Your task to perform on an android device: turn pop-ups off in chrome Image 0: 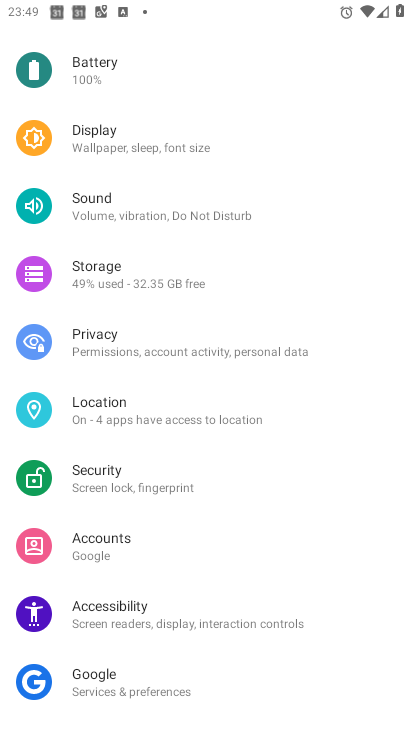
Step 0: press home button
Your task to perform on an android device: turn pop-ups off in chrome Image 1: 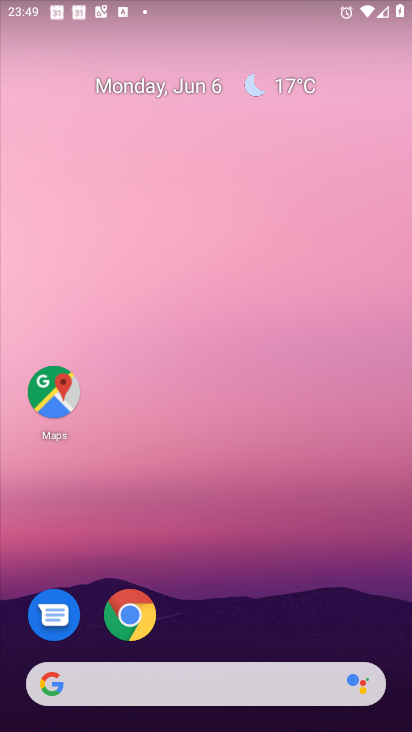
Step 1: click (136, 617)
Your task to perform on an android device: turn pop-ups off in chrome Image 2: 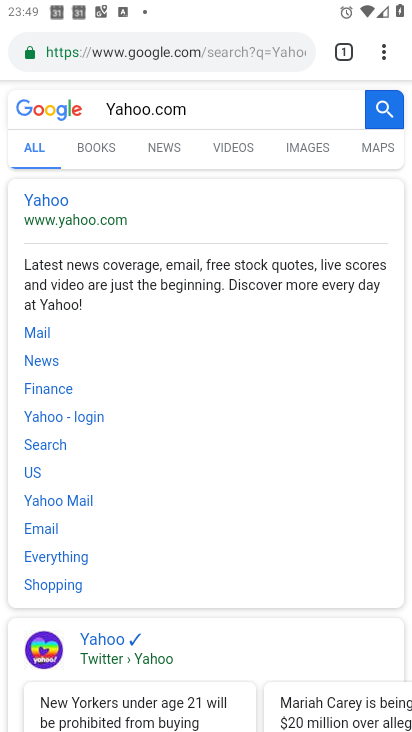
Step 2: click (378, 51)
Your task to perform on an android device: turn pop-ups off in chrome Image 3: 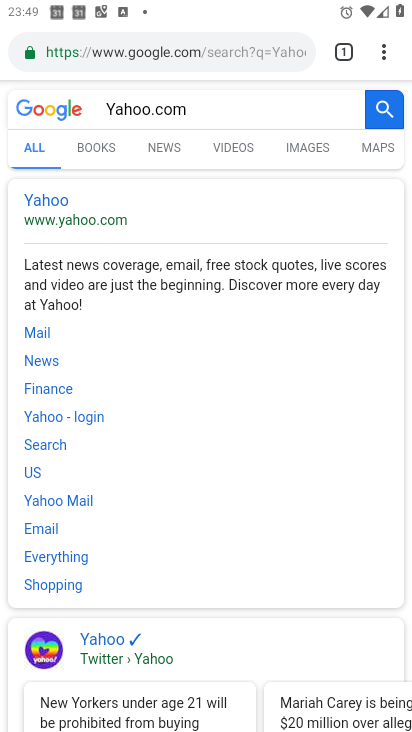
Step 3: click (381, 51)
Your task to perform on an android device: turn pop-ups off in chrome Image 4: 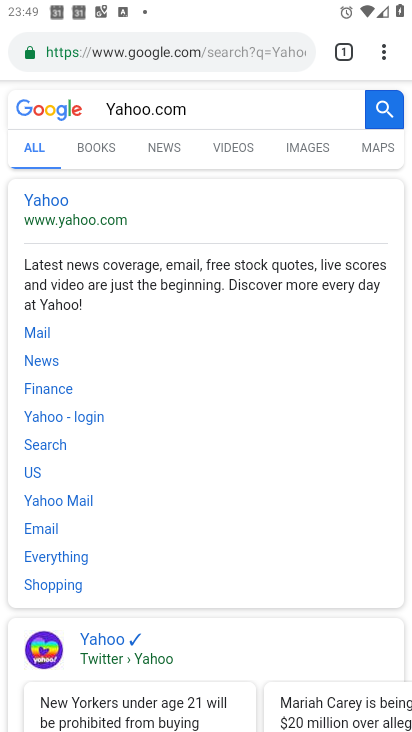
Step 4: click (385, 46)
Your task to perform on an android device: turn pop-ups off in chrome Image 5: 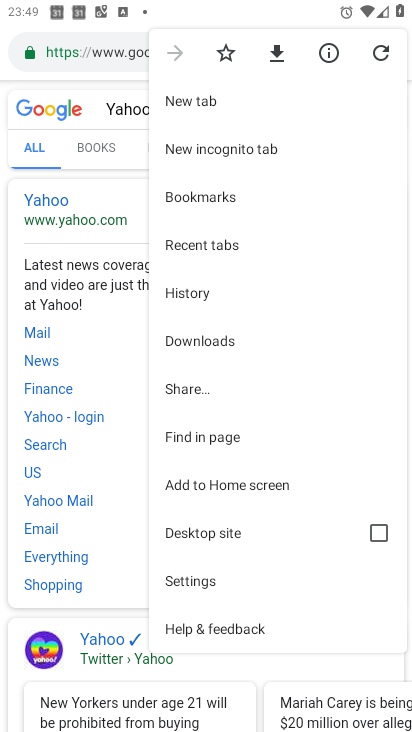
Step 5: drag from (260, 586) to (249, 216)
Your task to perform on an android device: turn pop-ups off in chrome Image 6: 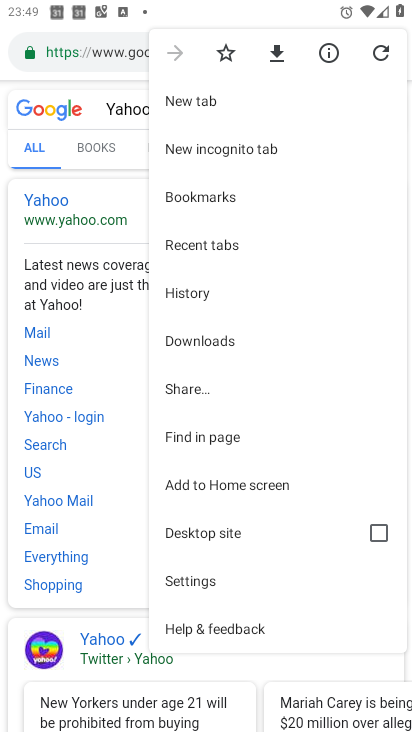
Step 6: click (204, 576)
Your task to perform on an android device: turn pop-ups off in chrome Image 7: 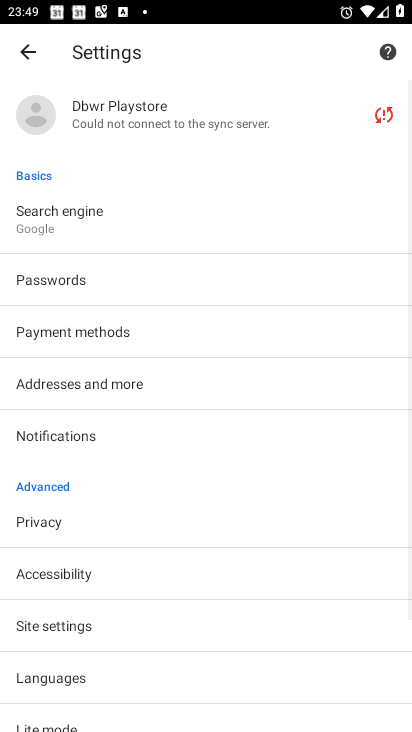
Step 7: drag from (204, 613) to (199, 213)
Your task to perform on an android device: turn pop-ups off in chrome Image 8: 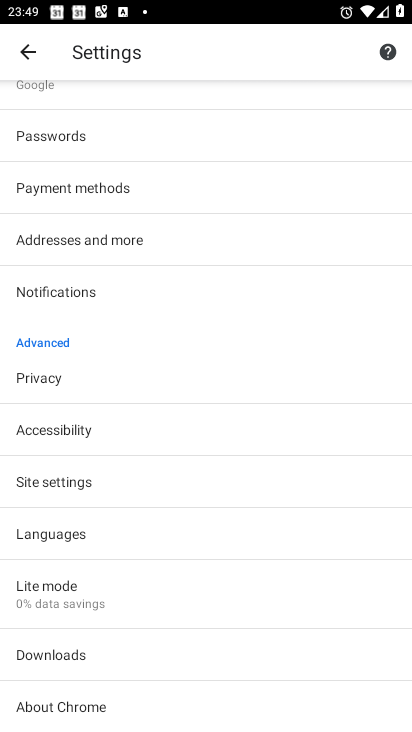
Step 8: click (41, 477)
Your task to perform on an android device: turn pop-ups off in chrome Image 9: 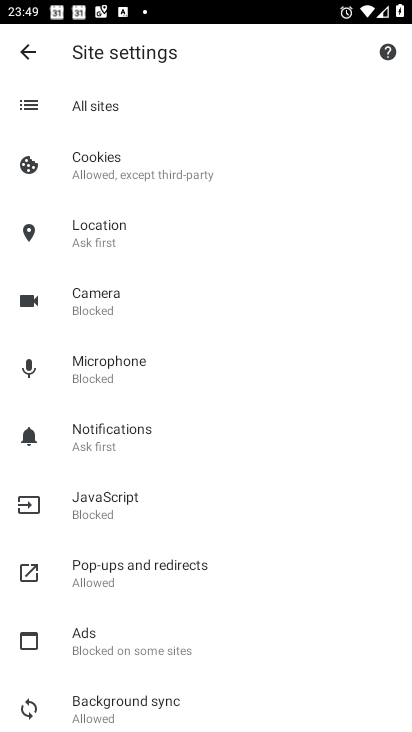
Step 9: click (100, 581)
Your task to perform on an android device: turn pop-ups off in chrome Image 10: 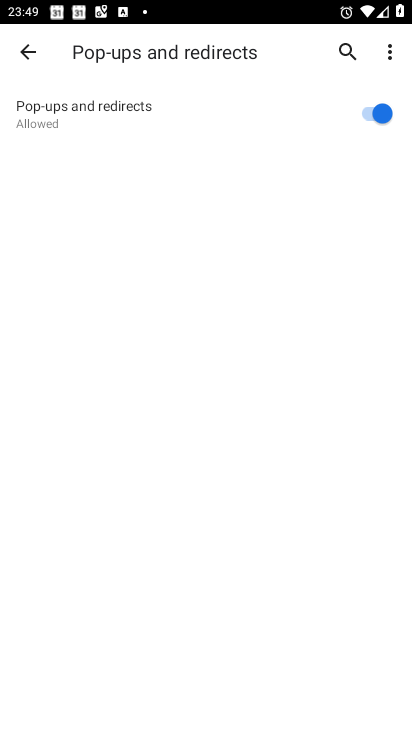
Step 10: click (367, 107)
Your task to perform on an android device: turn pop-ups off in chrome Image 11: 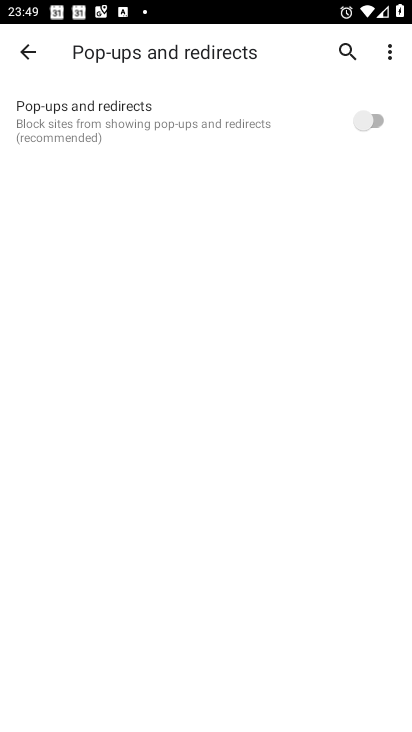
Step 11: task complete